Your task to perform on an android device: Open the Play Movies app and select the watchlist tab. Image 0: 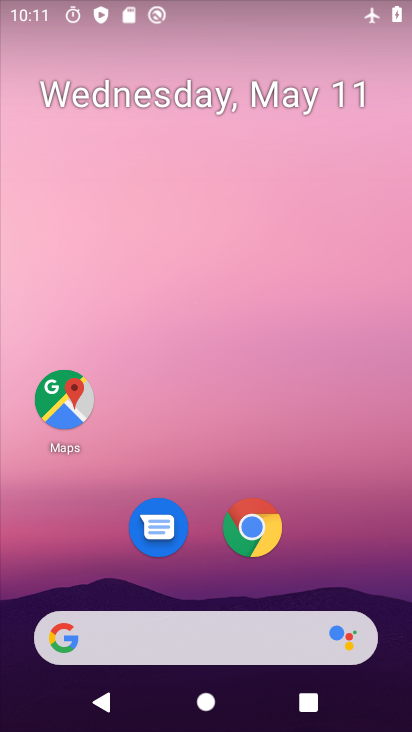
Step 0: drag from (241, 589) to (284, 243)
Your task to perform on an android device: Open the Play Movies app and select the watchlist tab. Image 1: 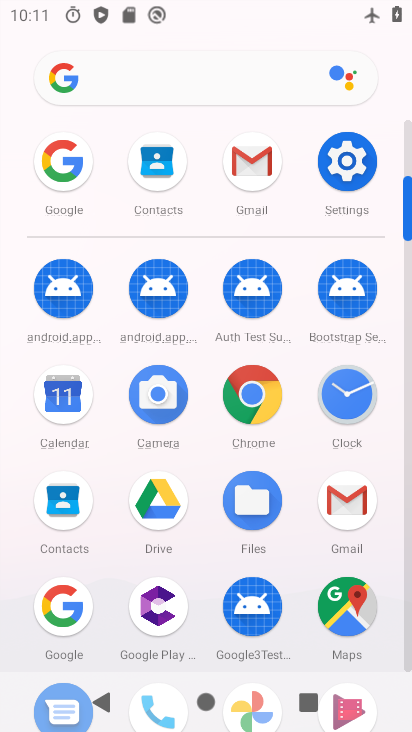
Step 1: drag from (285, 490) to (292, 303)
Your task to perform on an android device: Open the Play Movies app and select the watchlist tab. Image 2: 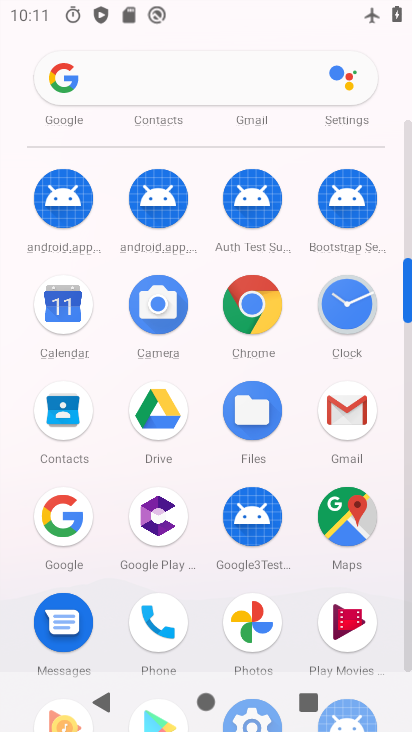
Step 2: drag from (275, 486) to (307, 346)
Your task to perform on an android device: Open the Play Movies app and select the watchlist tab. Image 3: 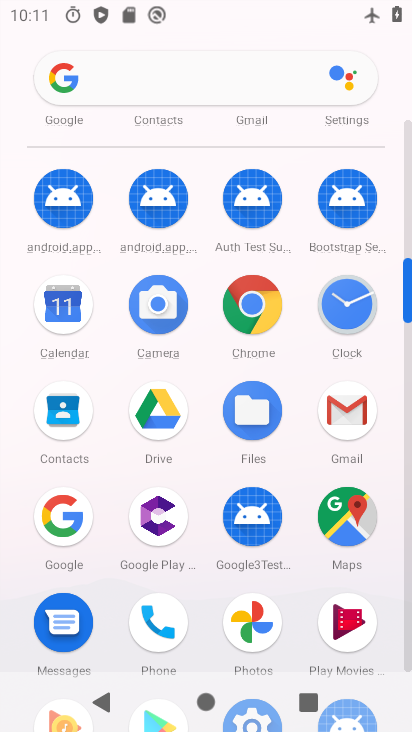
Step 3: drag from (255, 538) to (338, 105)
Your task to perform on an android device: Open the Play Movies app and select the watchlist tab. Image 4: 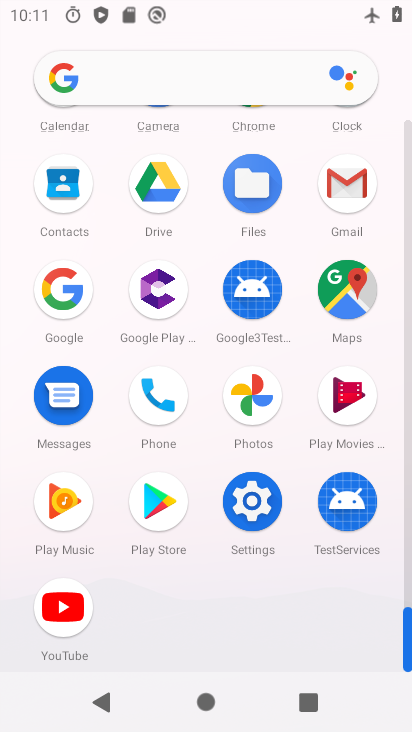
Step 4: click (364, 400)
Your task to perform on an android device: Open the Play Movies app and select the watchlist tab. Image 5: 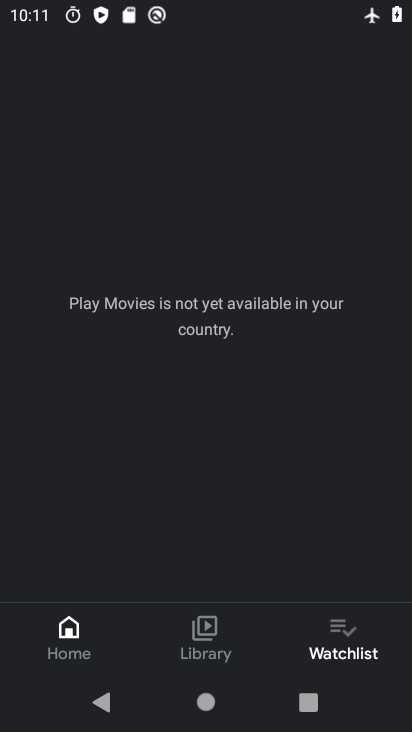
Step 5: click (322, 620)
Your task to perform on an android device: Open the Play Movies app and select the watchlist tab. Image 6: 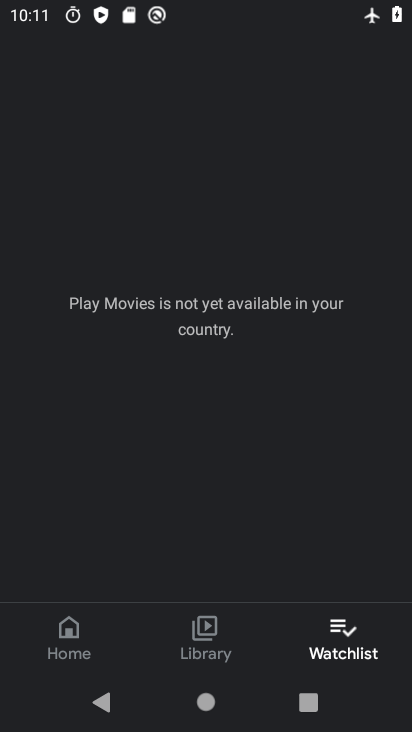
Step 6: task complete